Your task to perform on an android device: open app "Firefox Browser" (install if not already installed) Image 0: 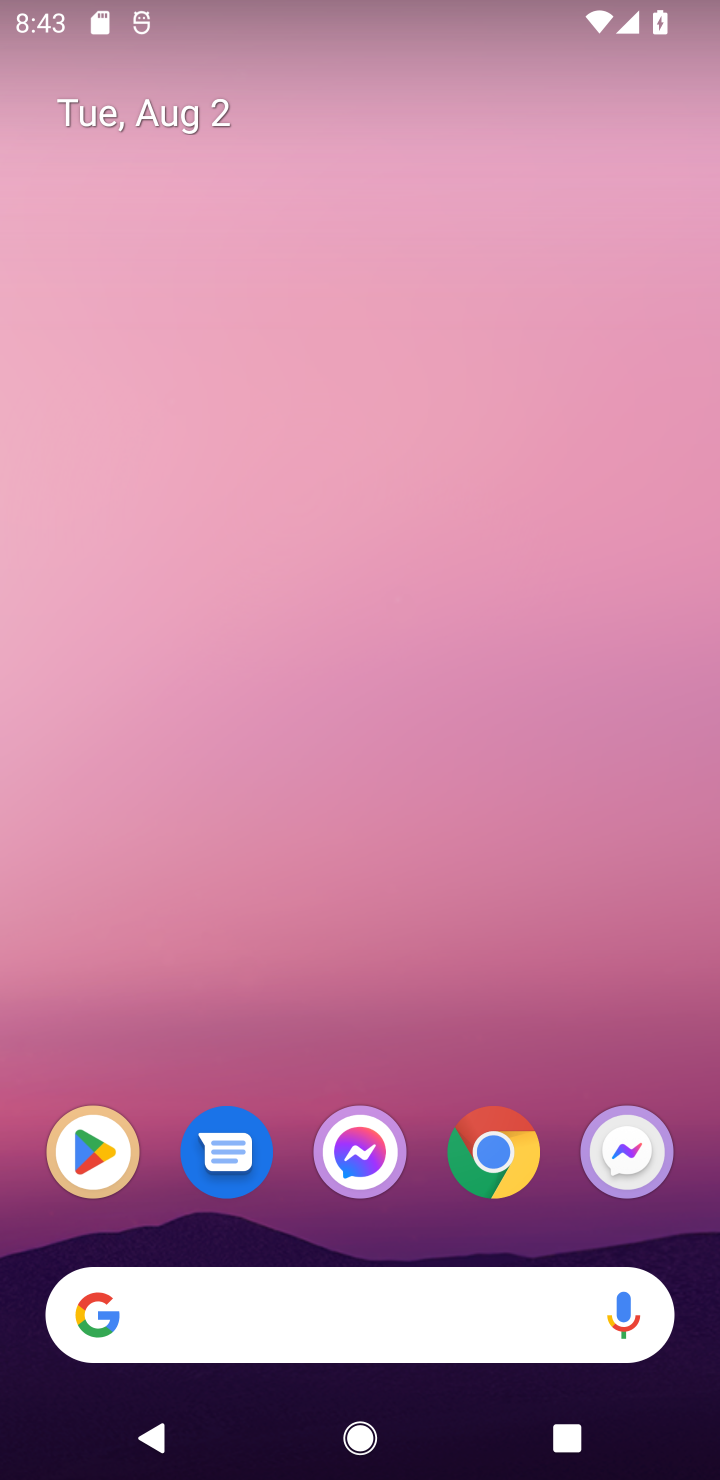
Step 0: click (98, 1166)
Your task to perform on an android device: open app "Firefox Browser" (install if not already installed) Image 1: 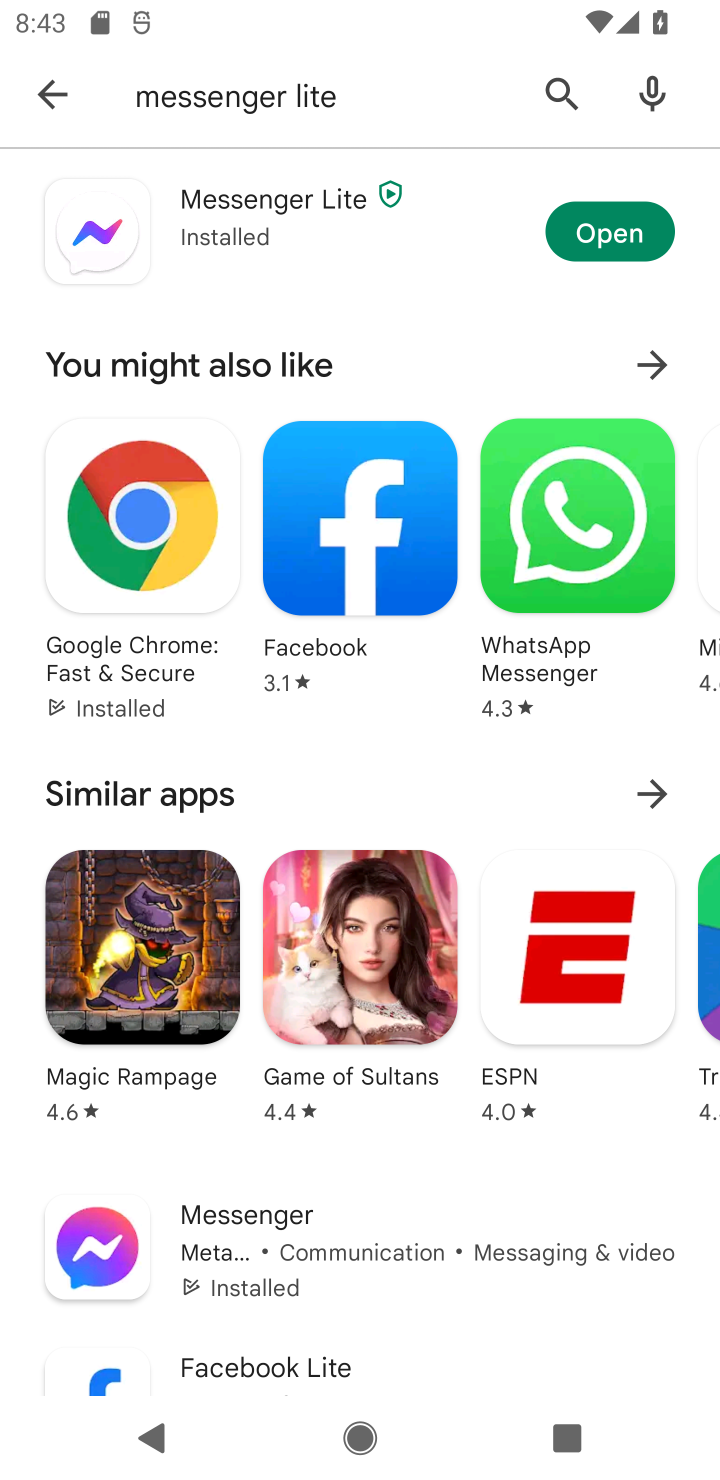
Step 1: click (48, 70)
Your task to perform on an android device: open app "Firefox Browser" (install if not already installed) Image 2: 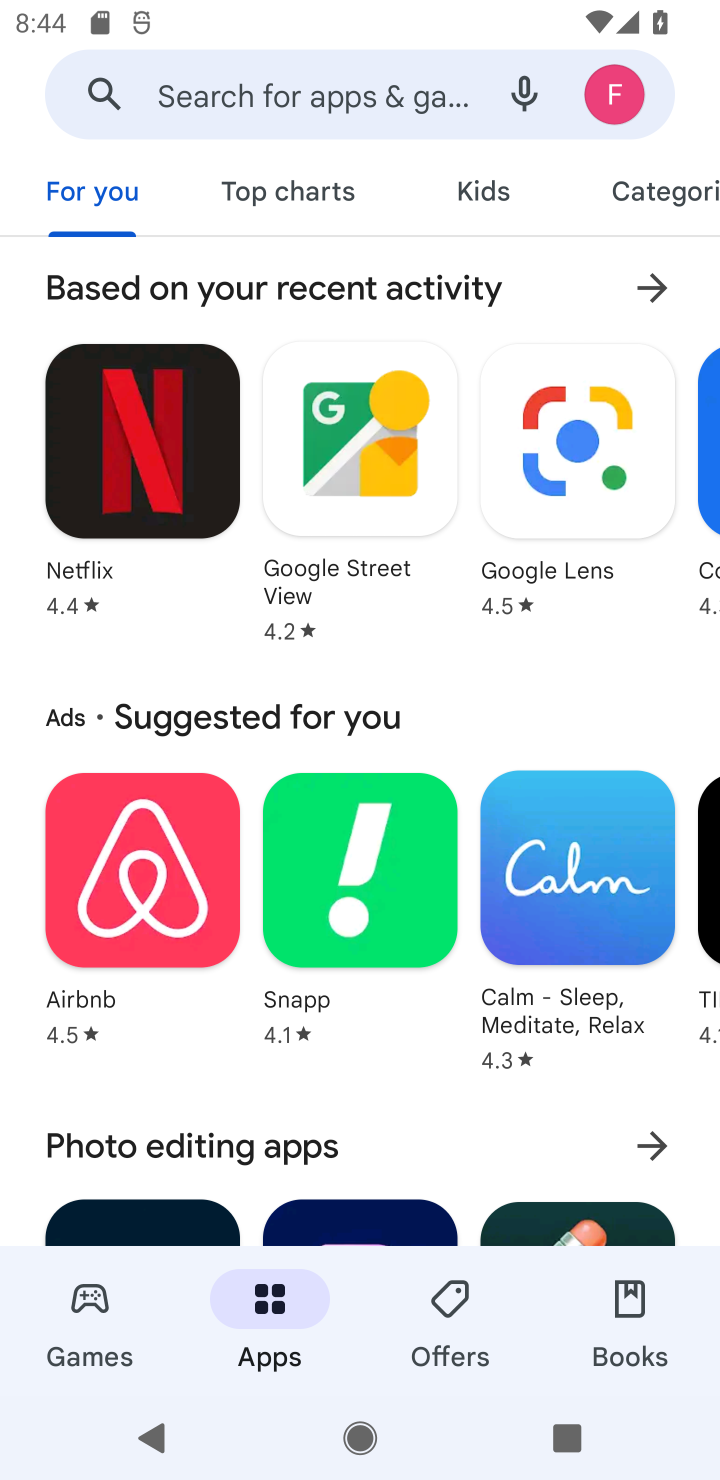
Step 2: click (286, 79)
Your task to perform on an android device: open app "Firefox Browser" (install if not already installed) Image 3: 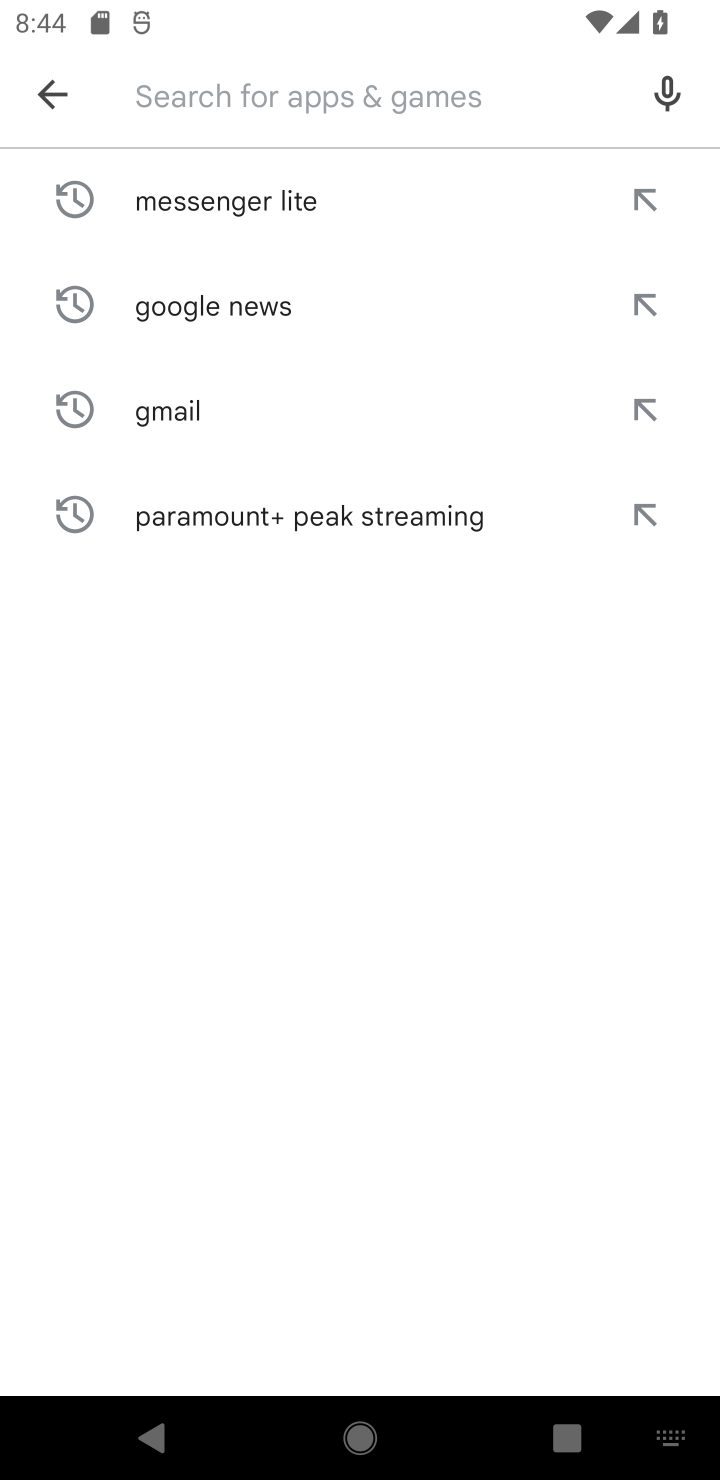
Step 3: type "Firefox Browser"
Your task to perform on an android device: open app "Firefox Browser" (install if not already installed) Image 4: 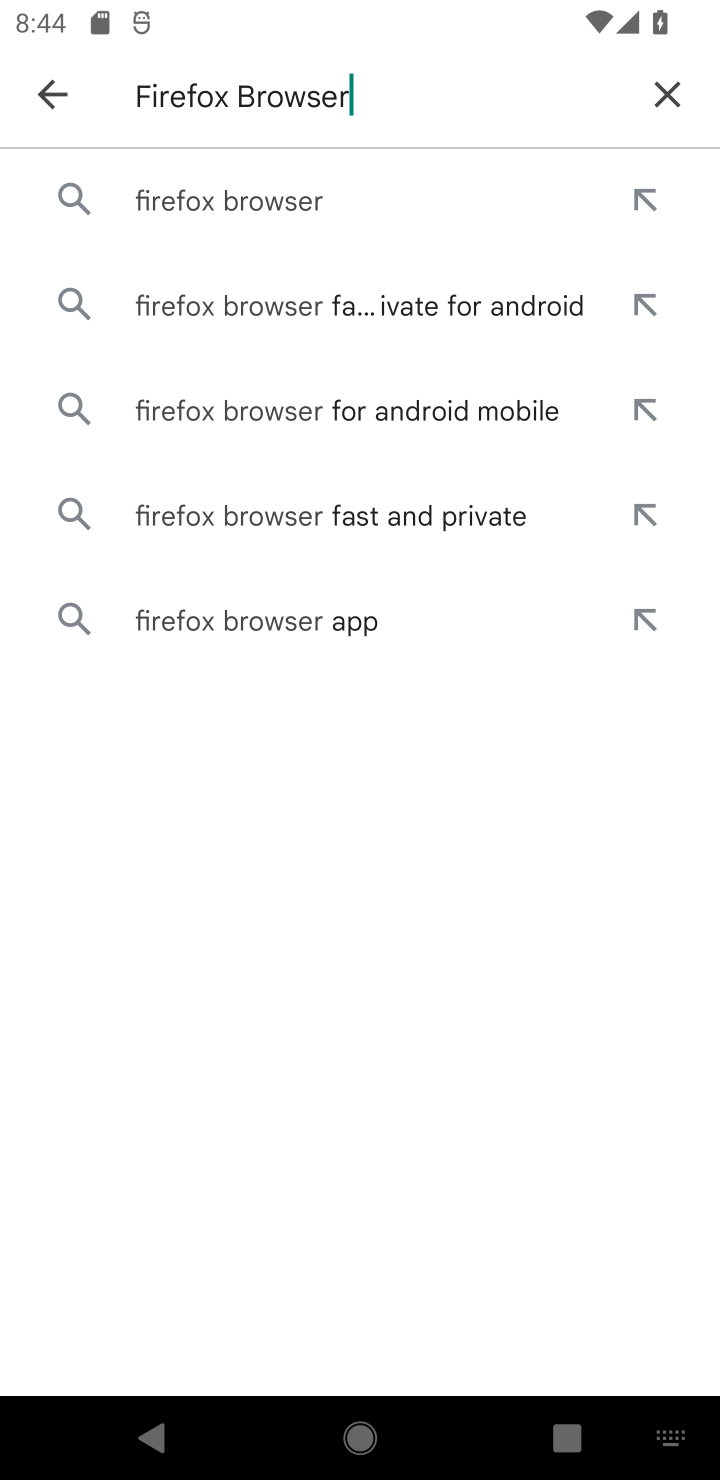
Step 4: click (239, 188)
Your task to perform on an android device: open app "Firefox Browser" (install if not already installed) Image 5: 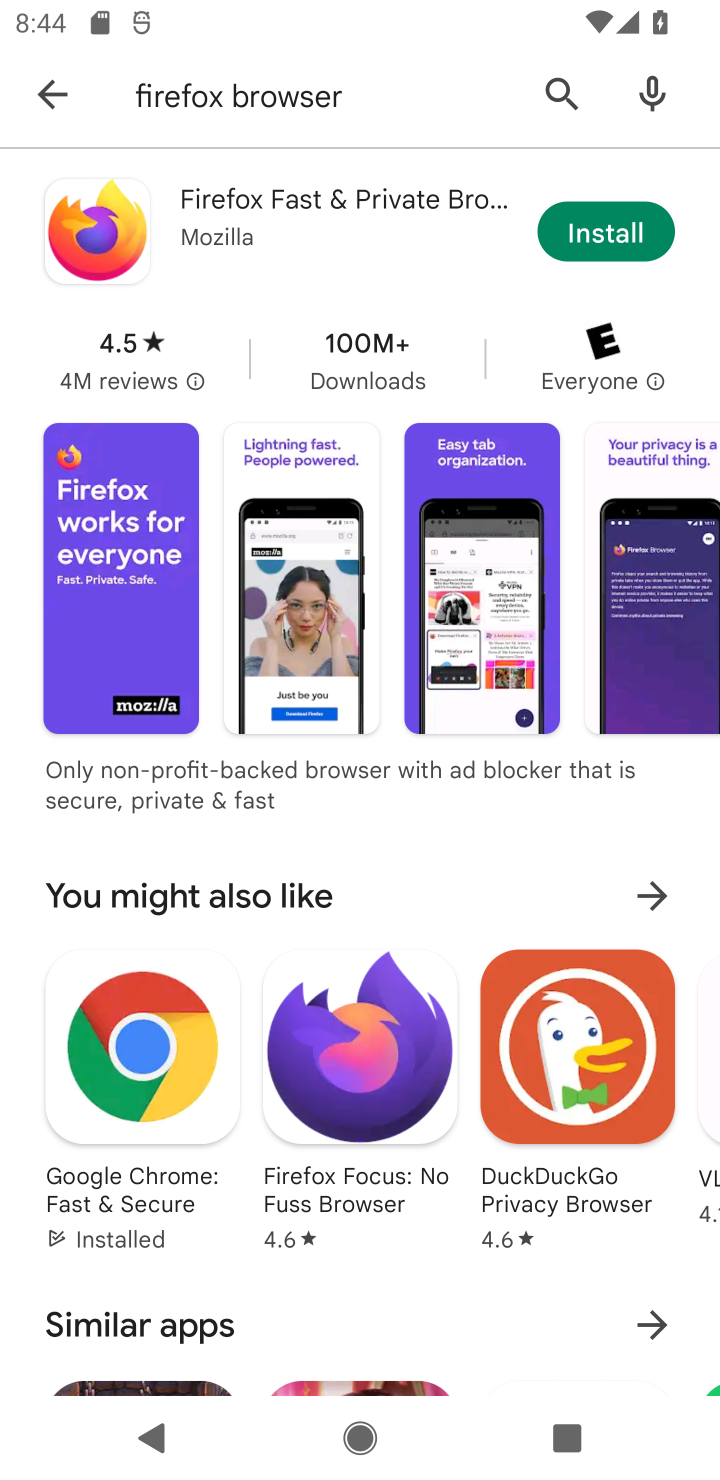
Step 5: click (575, 226)
Your task to perform on an android device: open app "Firefox Browser" (install if not already installed) Image 6: 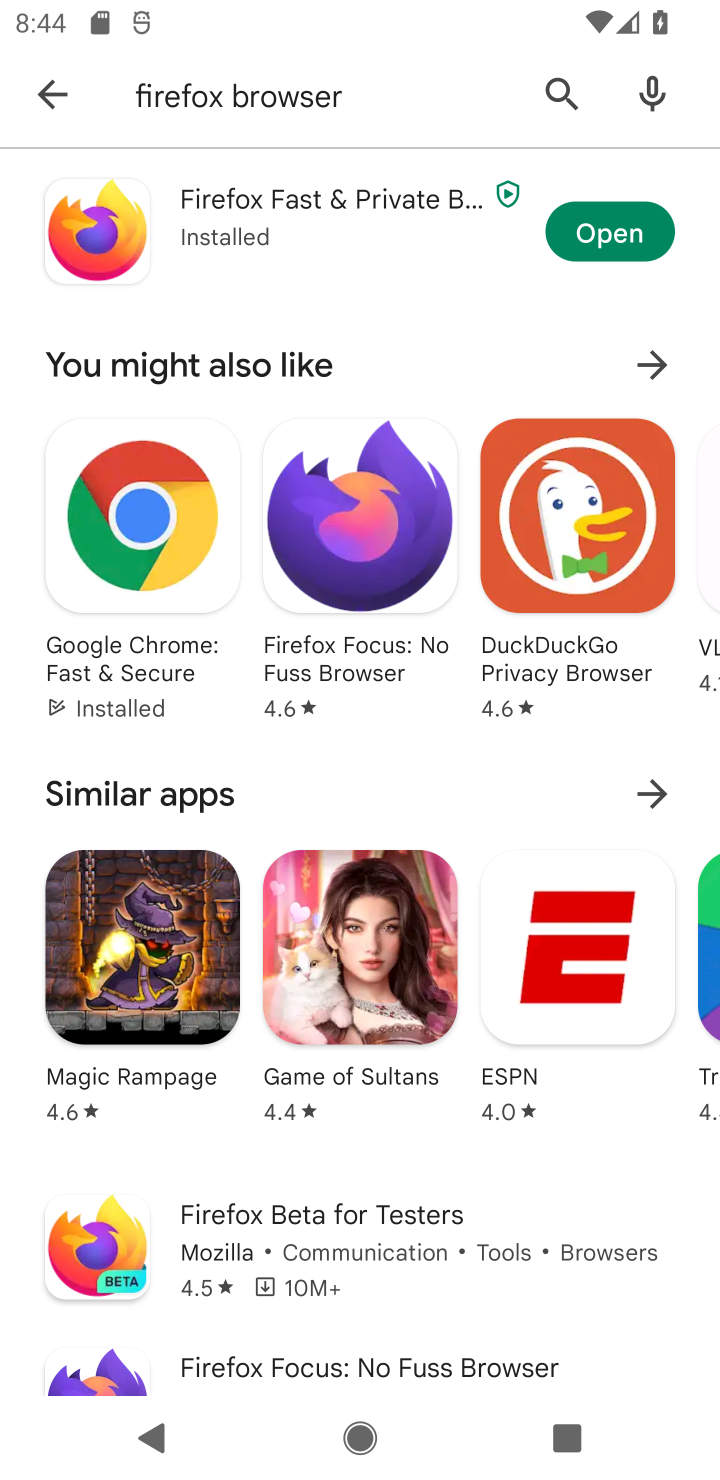
Step 6: click (599, 225)
Your task to perform on an android device: open app "Firefox Browser" (install if not already installed) Image 7: 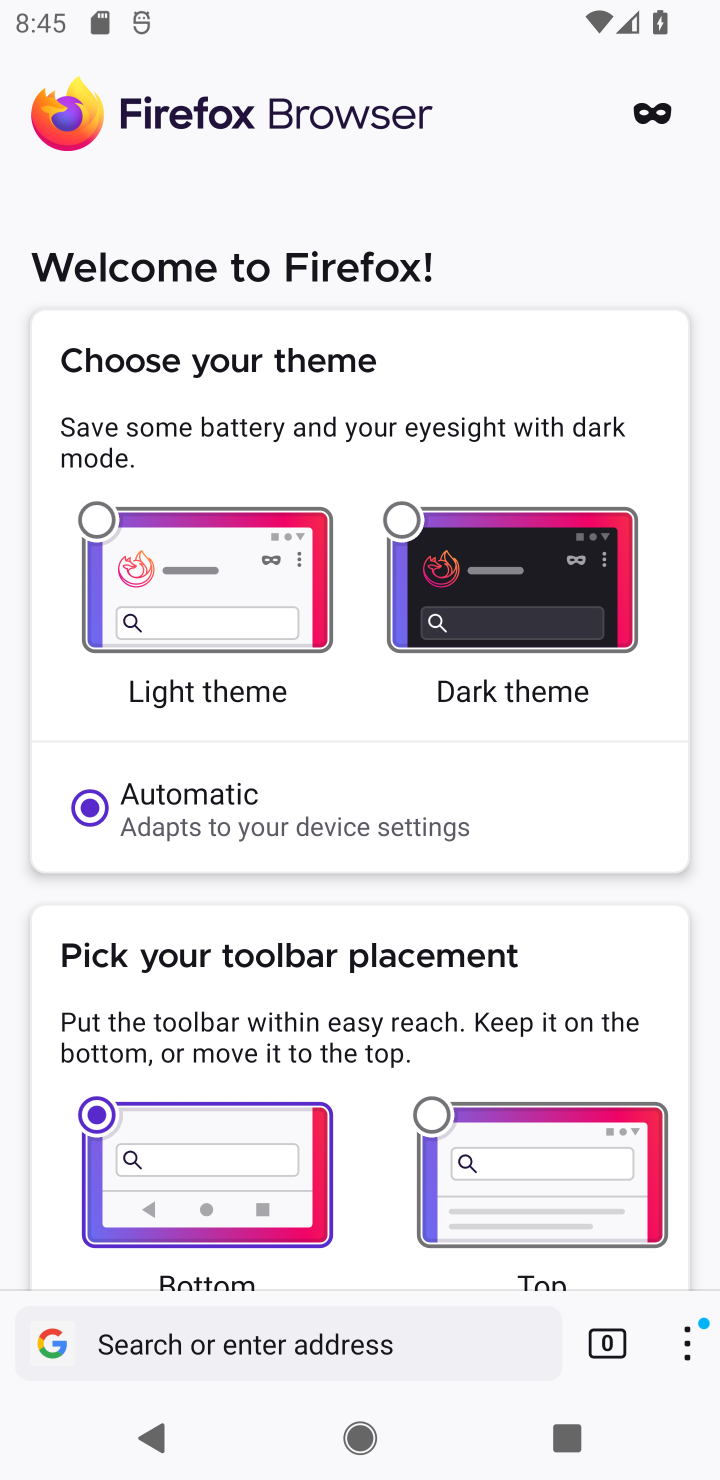
Step 7: task complete